Your task to perform on an android device: check data usage Image 0: 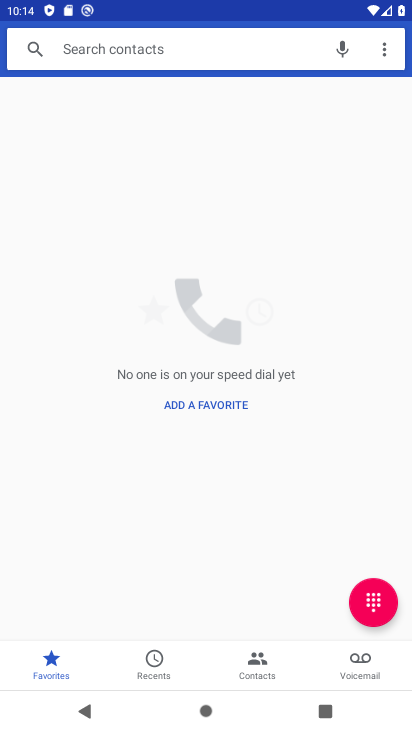
Step 0: press home button
Your task to perform on an android device: check data usage Image 1: 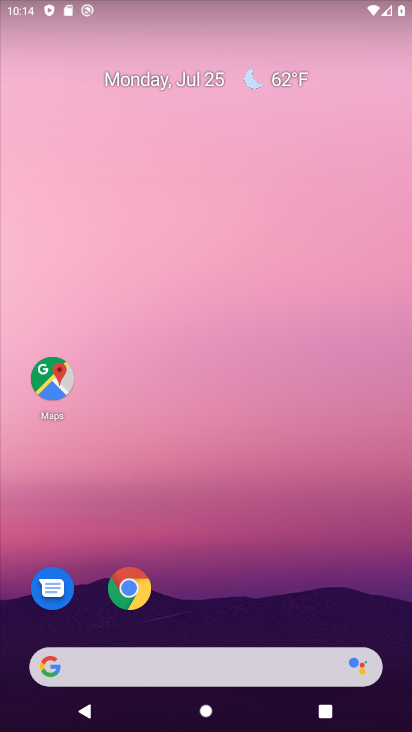
Step 1: drag from (237, 608) to (218, 108)
Your task to perform on an android device: check data usage Image 2: 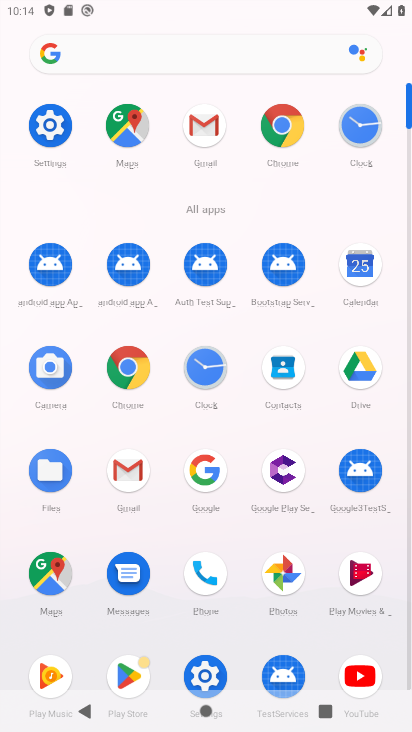
Step 2: click (201, 677)
Your task to perform on an android device: check data usage Image 3: 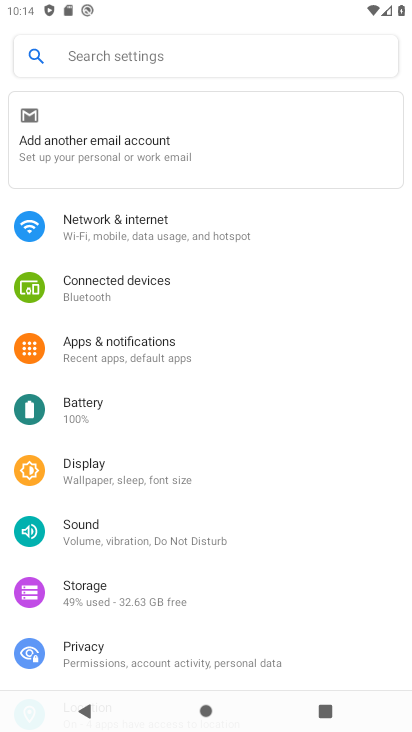
Step 3: click (212, 223)
Your task to perform on an android device: check data usage Image 4: 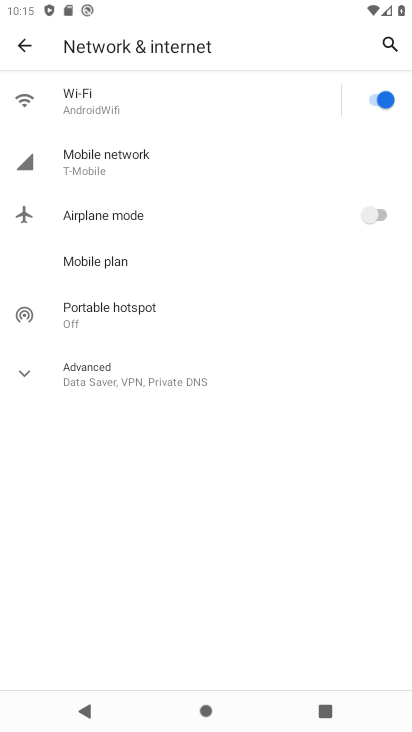
Step 4: click (160, 166)
Your task to perform on an android device: check data usage Image 5: 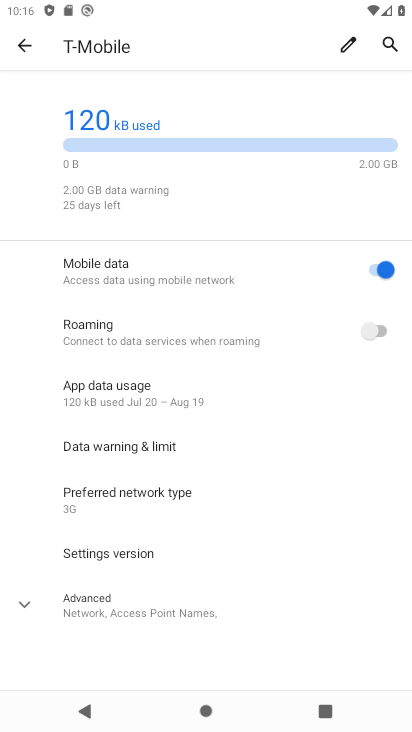
Step 5: click (146, 384)
Your task to perform on an android device: check data usage Image 6: 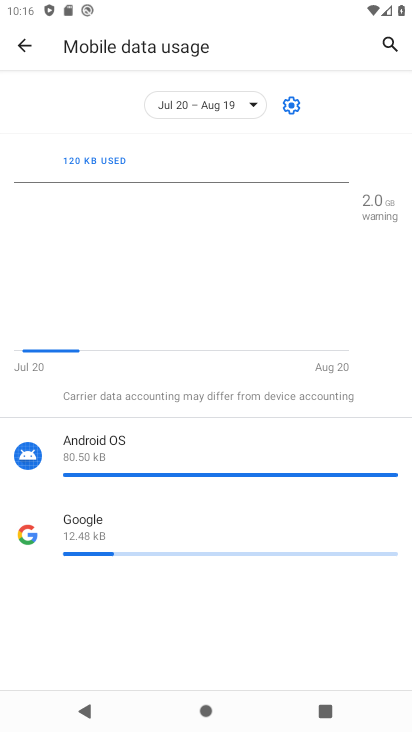
Step 6: task complete